Your task to perform on an android device: open wifi settings Image 0: 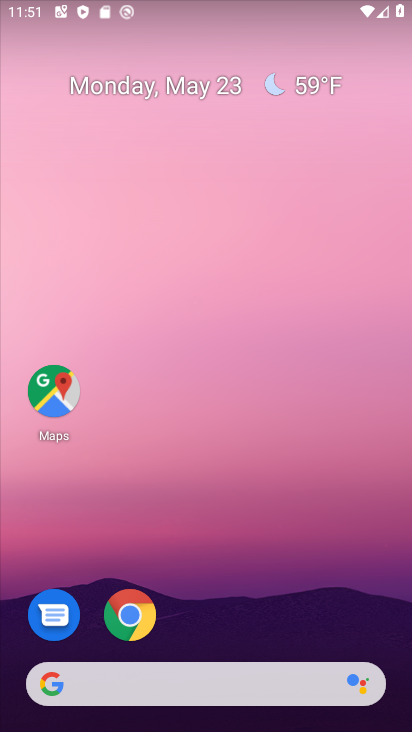
Step 0: drag from (286, 592) to (204, 11)
Your task to perform on an android device: open wifi settings Image 1: 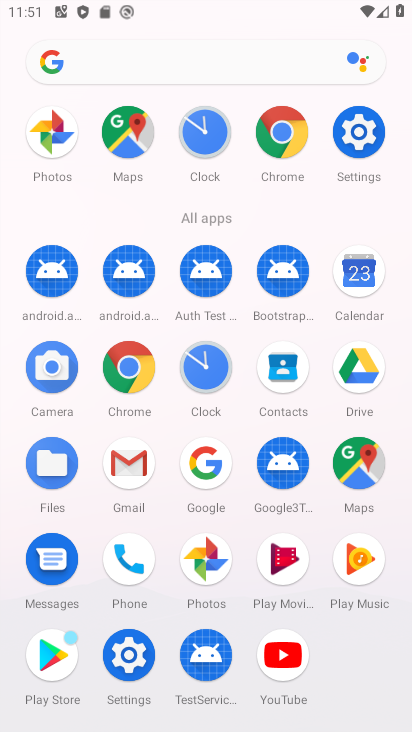
Step 1: click (128, 651)
Your task to perform on an android device: open wifi settings Image 2: 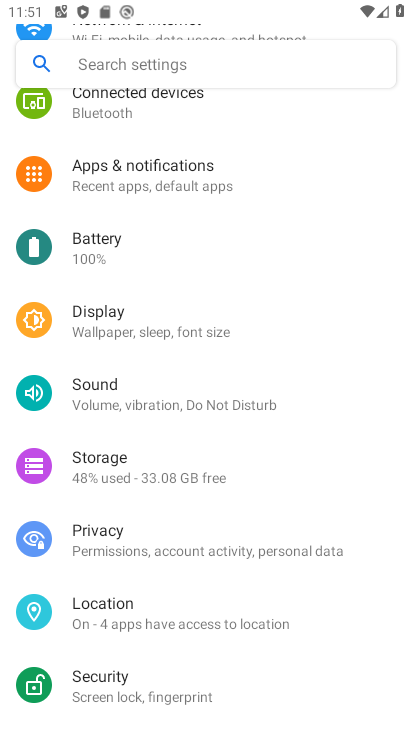
Step 2: drag from (187, 159) to (189, 566)
Your task to perform on an android device: open wifi settings Image 3: 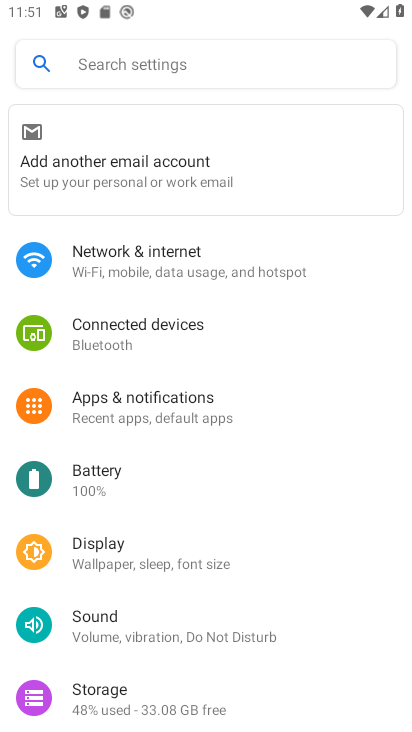
Step 3: click (135, 257)
Your task to perform on an android device: open wifi settings Image 4: 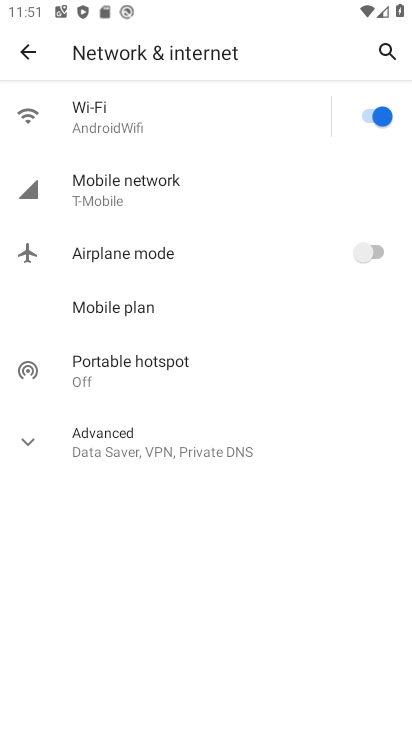
Step 4: click (28, 440)
Your task to perform on an android device: open wifi settings Image 5: 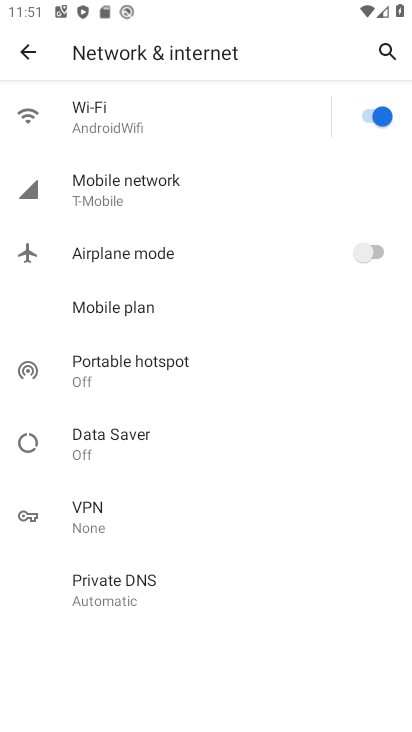
Step 5: click (128, 106)
Your task to perform on an android device: open wifi settings Image 6: 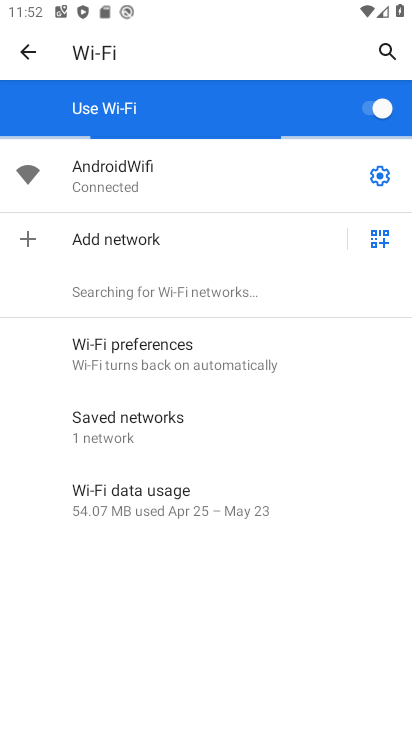
Step 6: task complete